Your task to perform on an android device: Open battery settings Image 0: 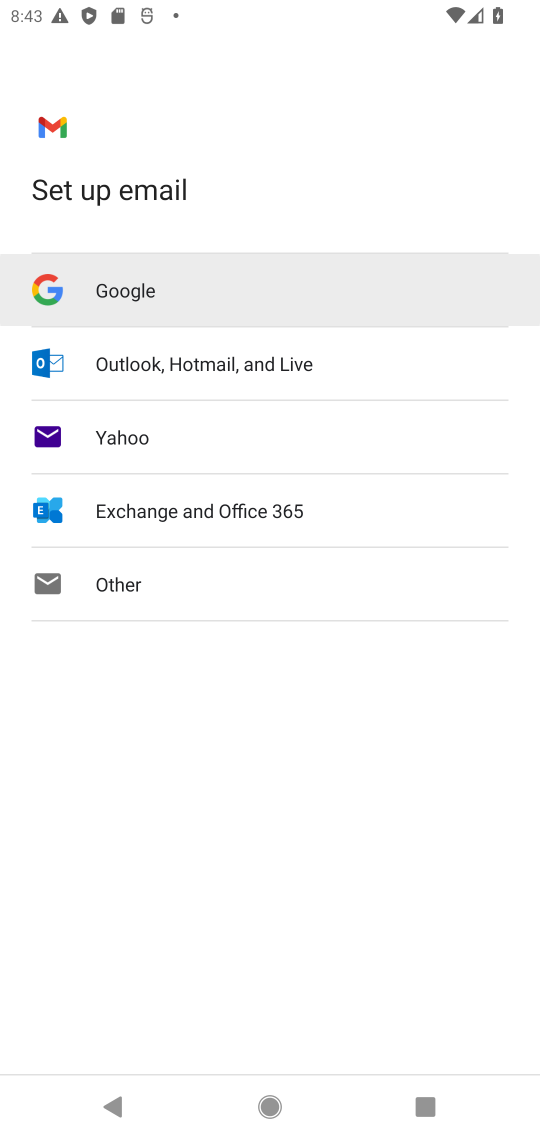
Step 0: press home button
Your task to perform on an android device: Open battery settings Image 1: 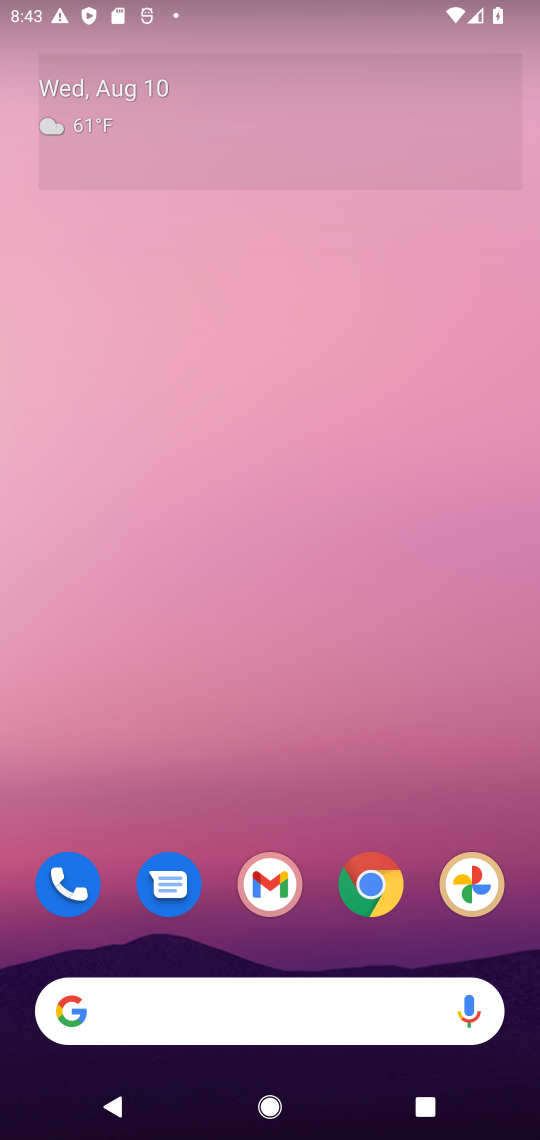
Step 1: drag from (37, 1106) to (428, 116)
Your task to perform on an android device: Open battery settings Image 2: 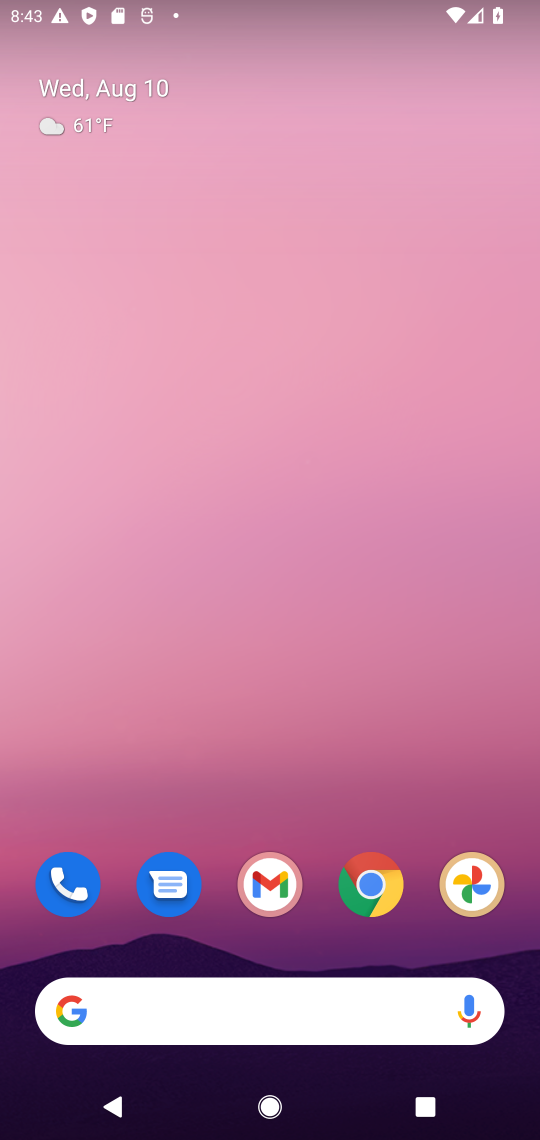
Step 2: drag from (105, 1024) to (519, 122)
Your task to perform on an android device: Open battery settings Image 3: 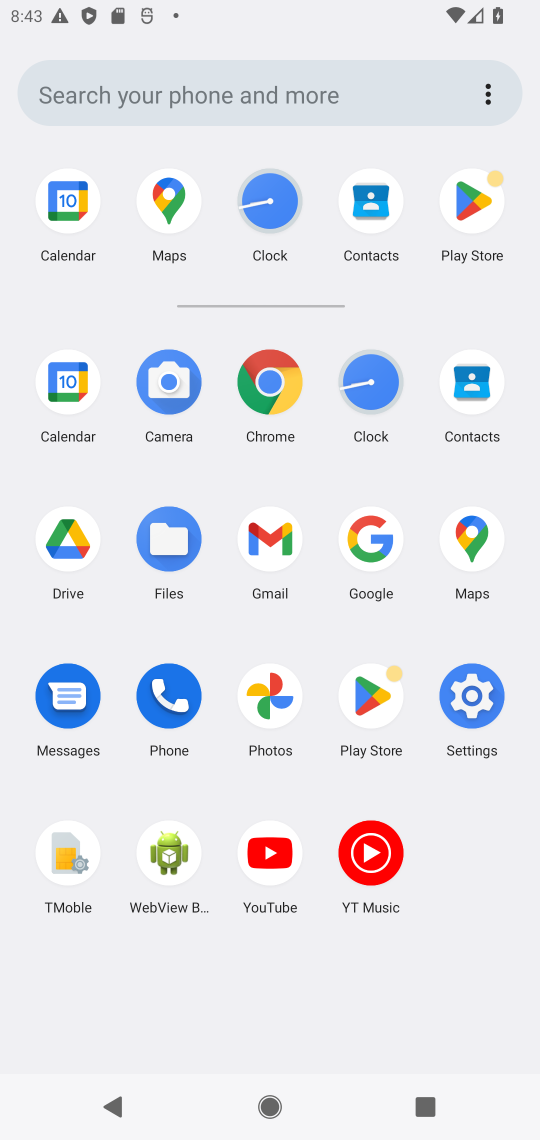
Step 3: click (463, 705)
Your task to perform on an android device: Open battery settings Image 4: 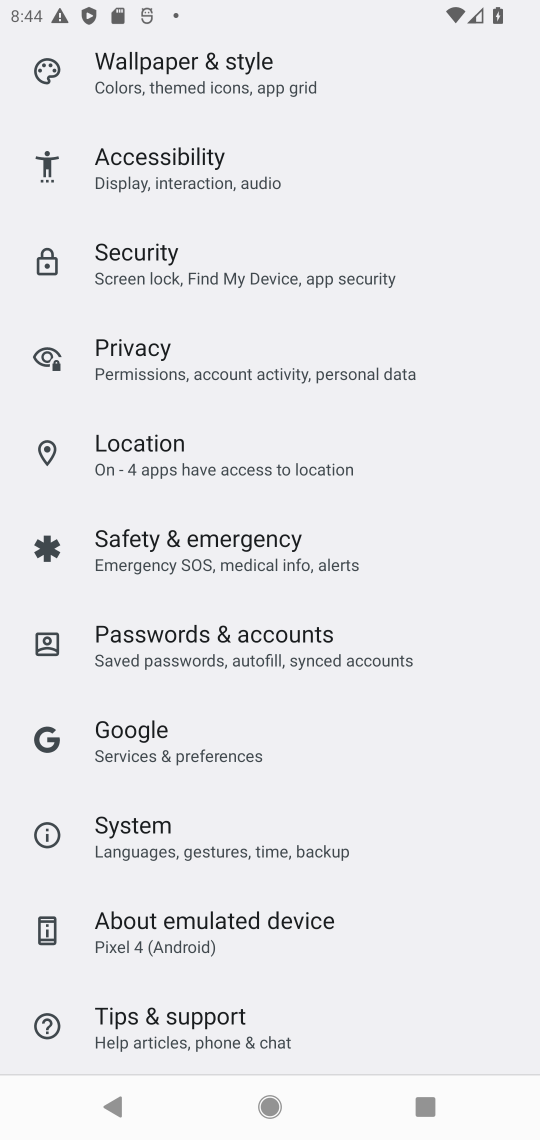
Step 4: drag from (380, 226) to (347, 775)
Your task to perform on an android device: Open battery settings Image 5: 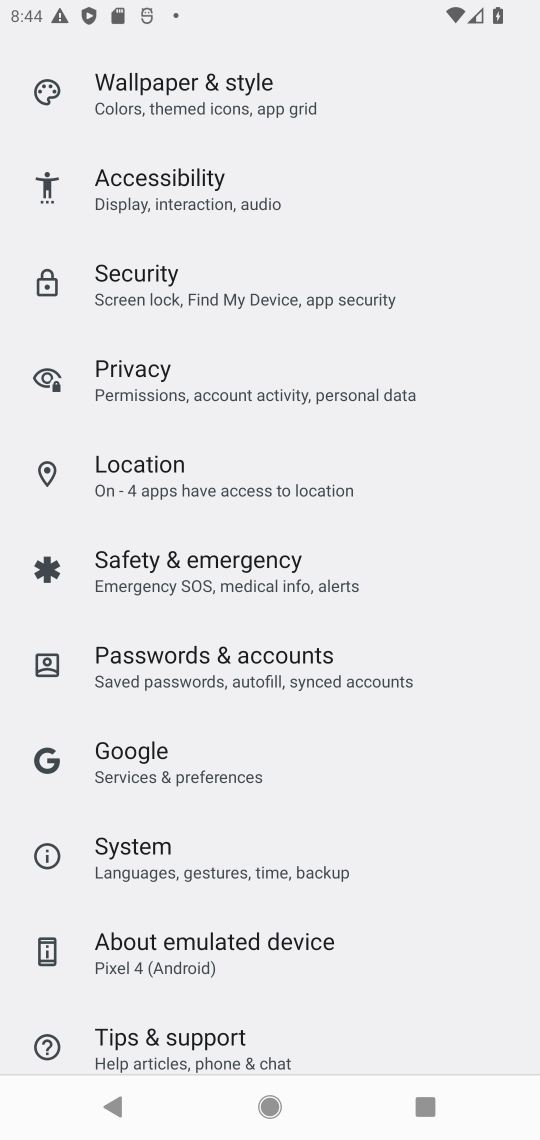
Step 5: drag from (427, 383) to (307, 1105)
Your task to perform on an android device: Open battery settings Image 6: 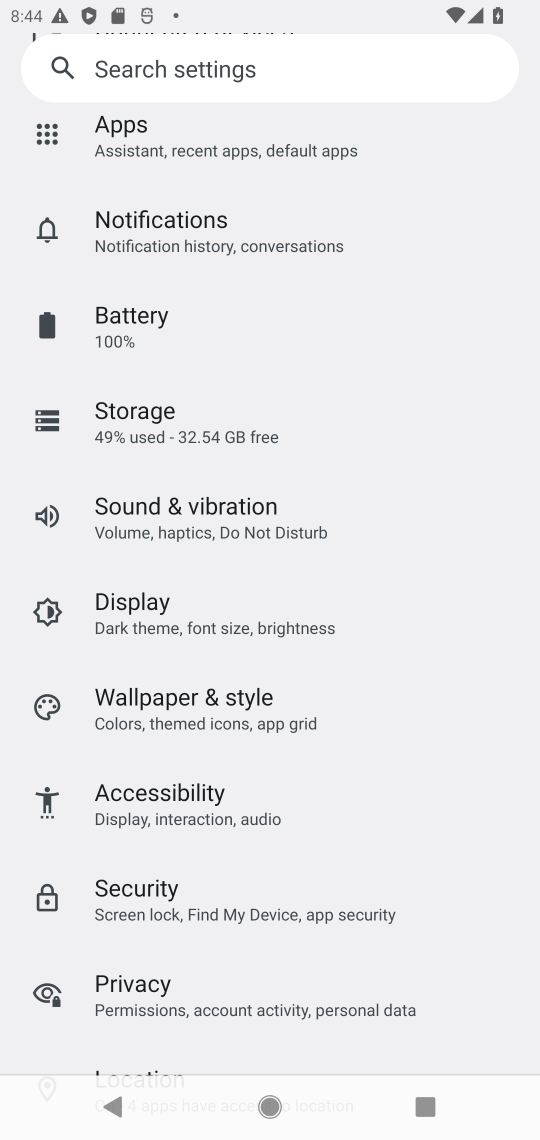
Step 6: click (175, 346)
Your task to perform on an android device: Open battery settings Image 7: 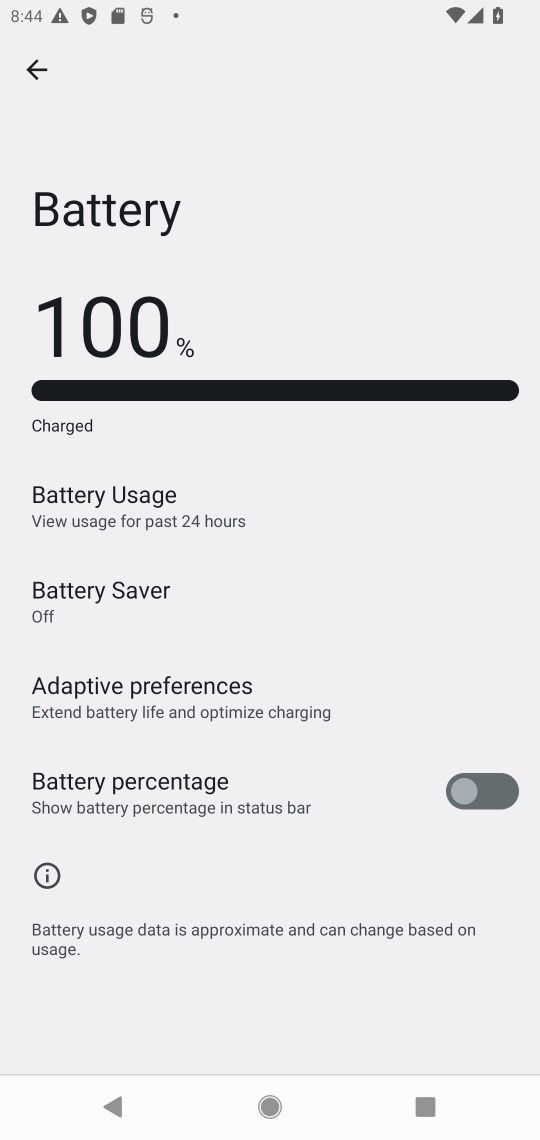
Step 7: task complete